Your task to perform on an android device: add a contact Image 0: 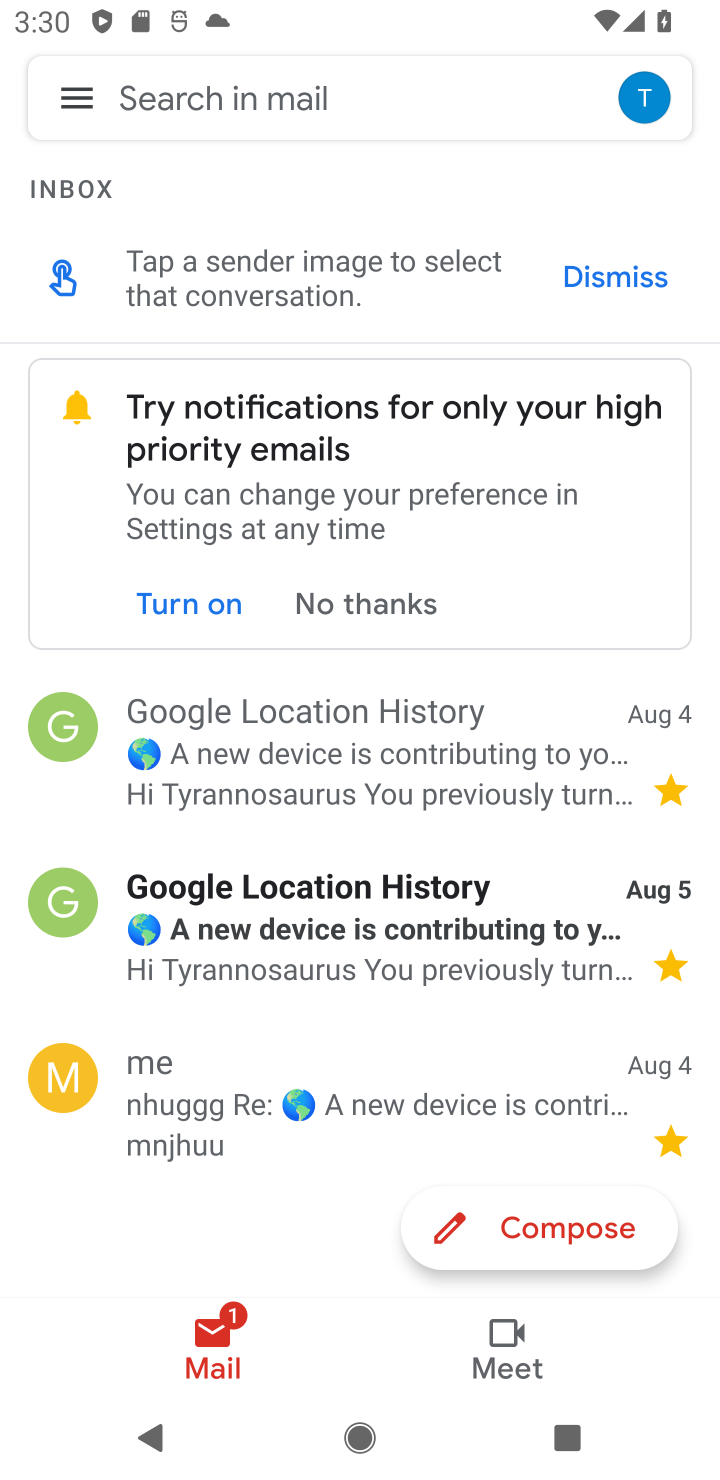
Step 0: press home button
Your task to perform on an android device: add a contact Image 1: 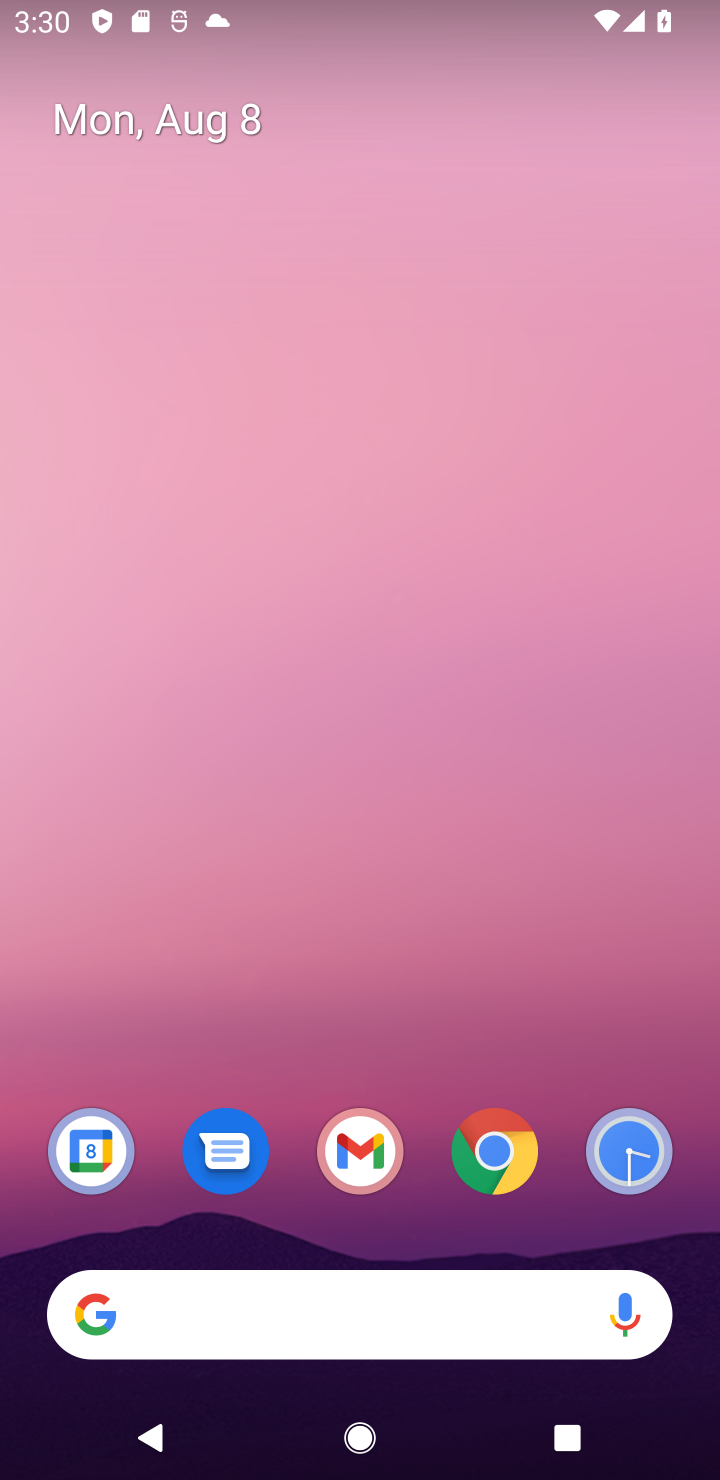
Step 1: drag from (342, 1045) to (298, 366)
Your task to perform on an android device: add a contact Image 2: 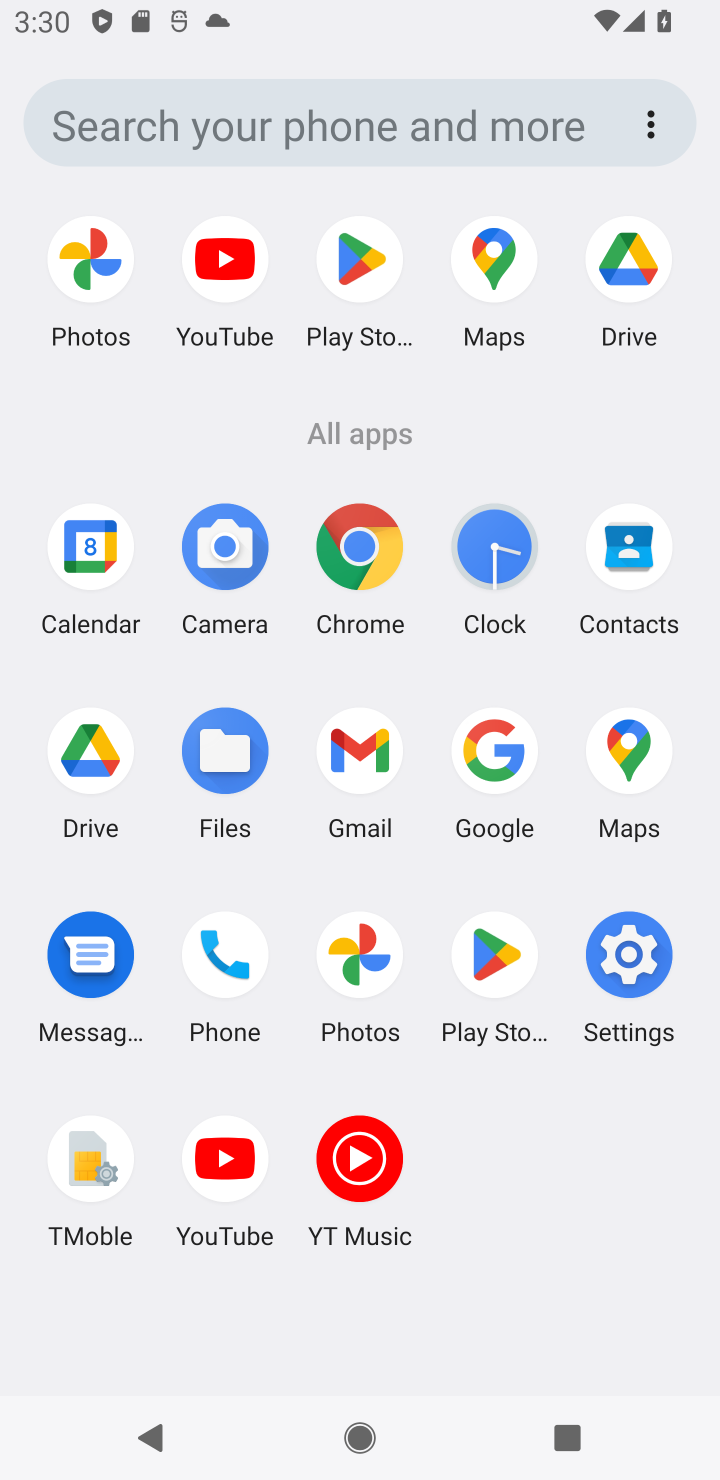
Step 2: click (599, 553)
Your task to perform on an android device: add a contact Image 3: 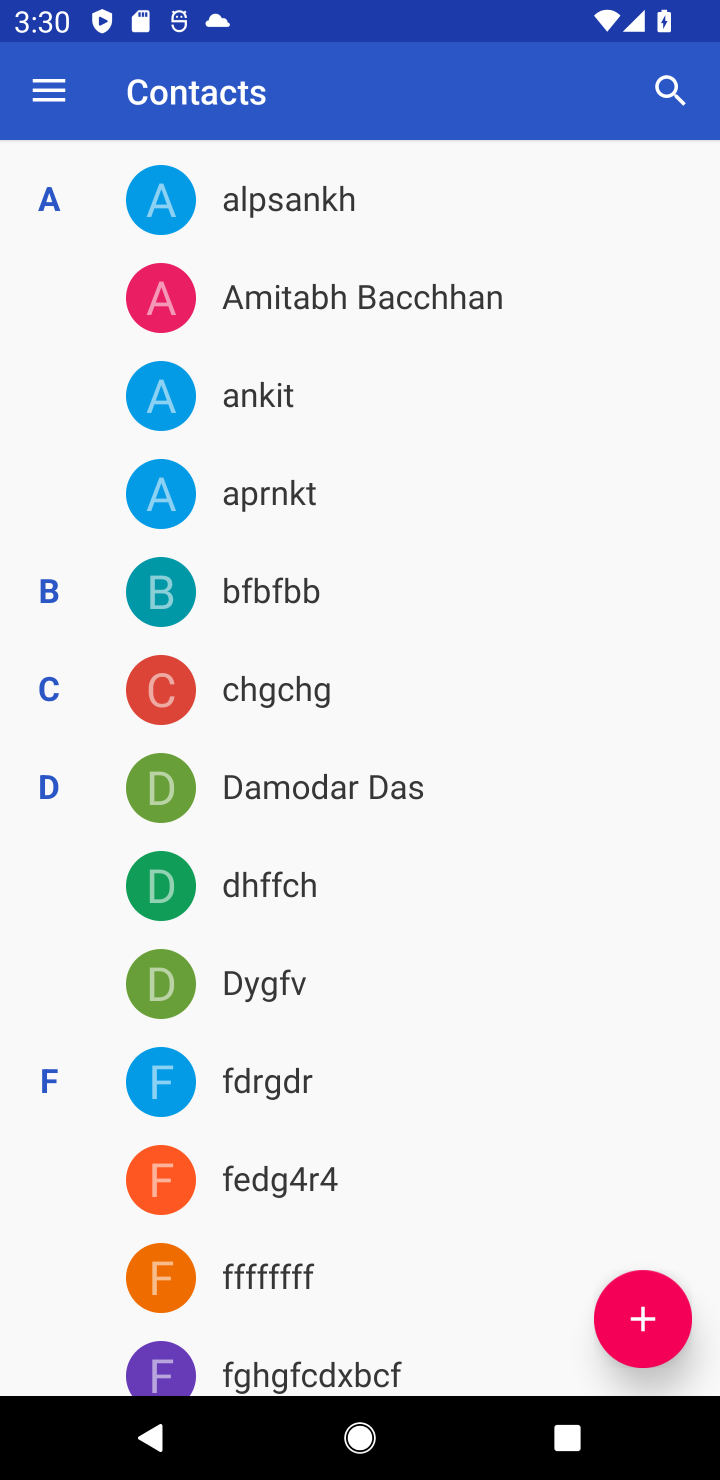
Step 3: click (646, 1282)
Your task to perform on an android device: add a contact Image 4: 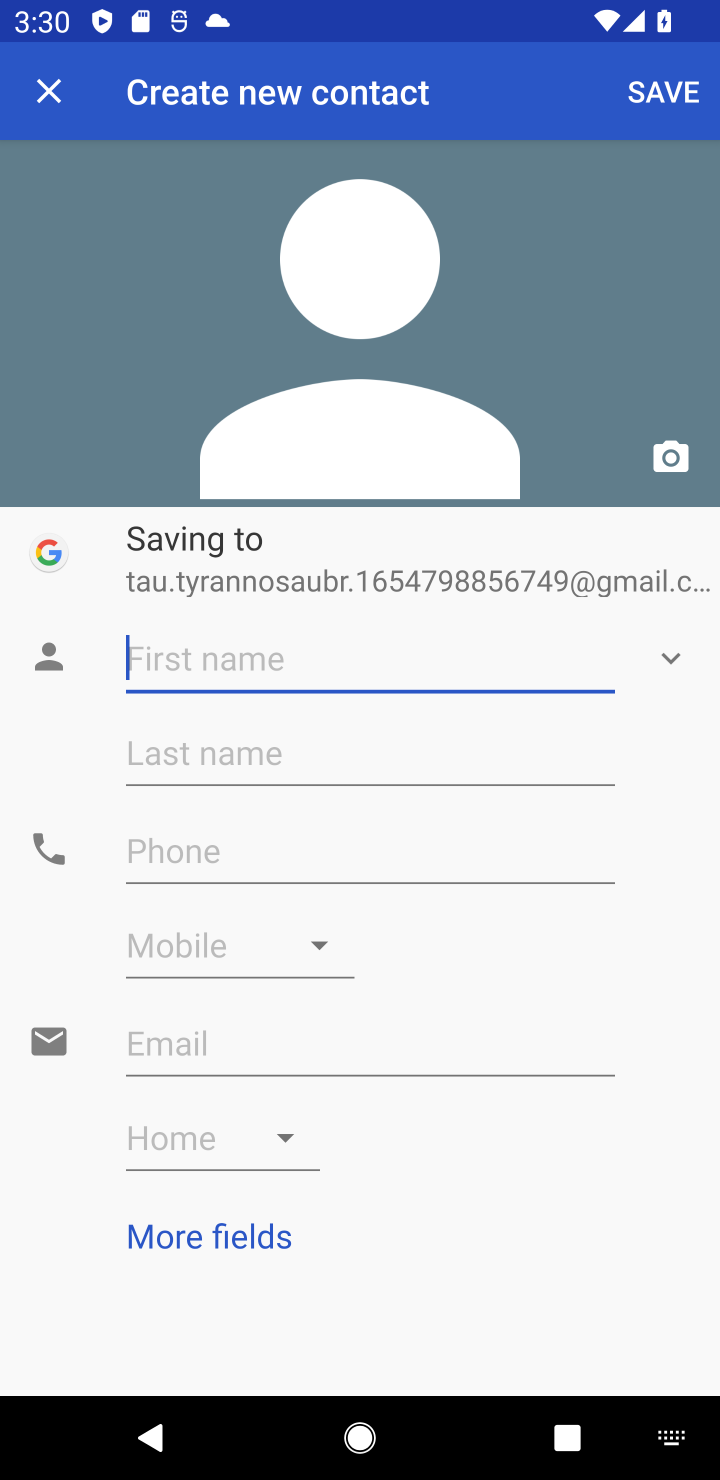
Step 4: type "aaa"
Your task to perform on an android device: add a contact Image 5: 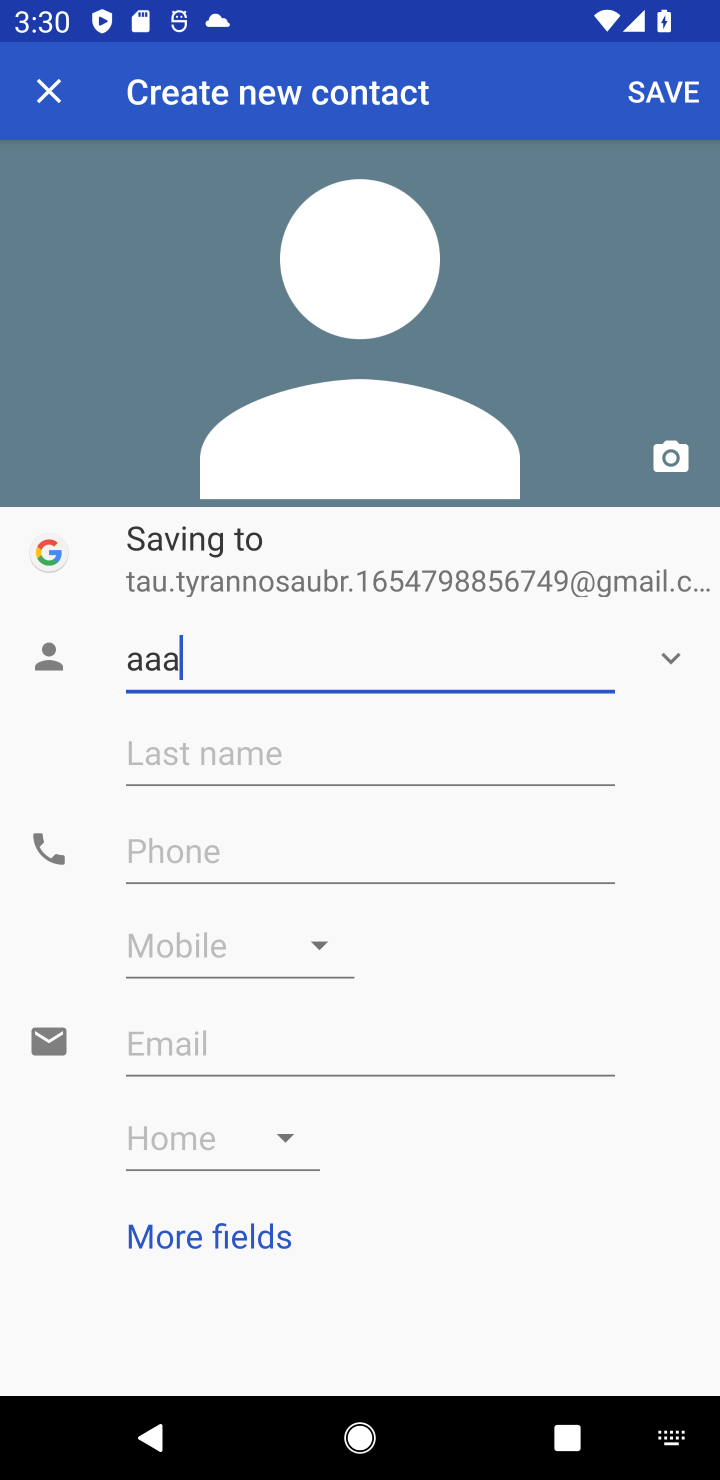
Step 5: click (253, 851)
Your task to perform on an android device: add a contact Image 6: 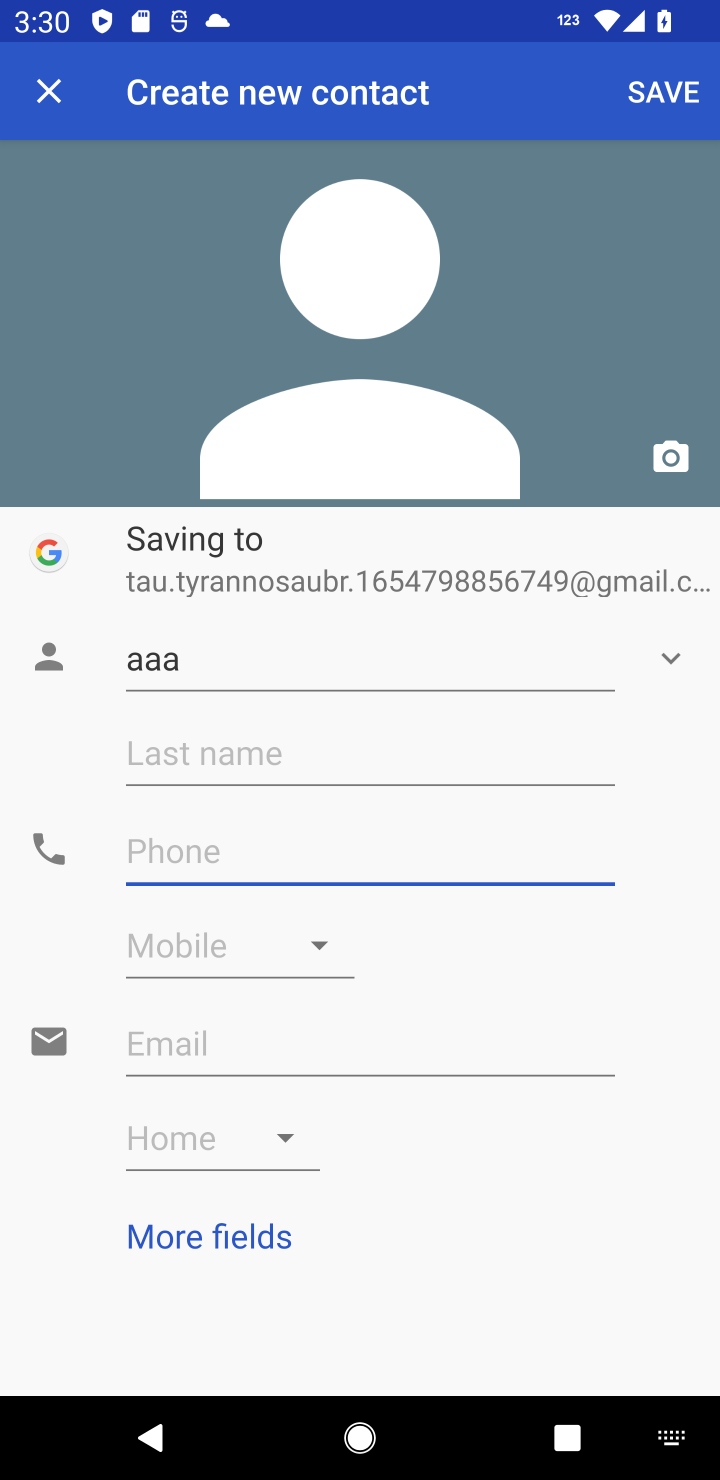
Step 6: type "8686577567"
Your task to perform on an android device: add a contact Image 7: 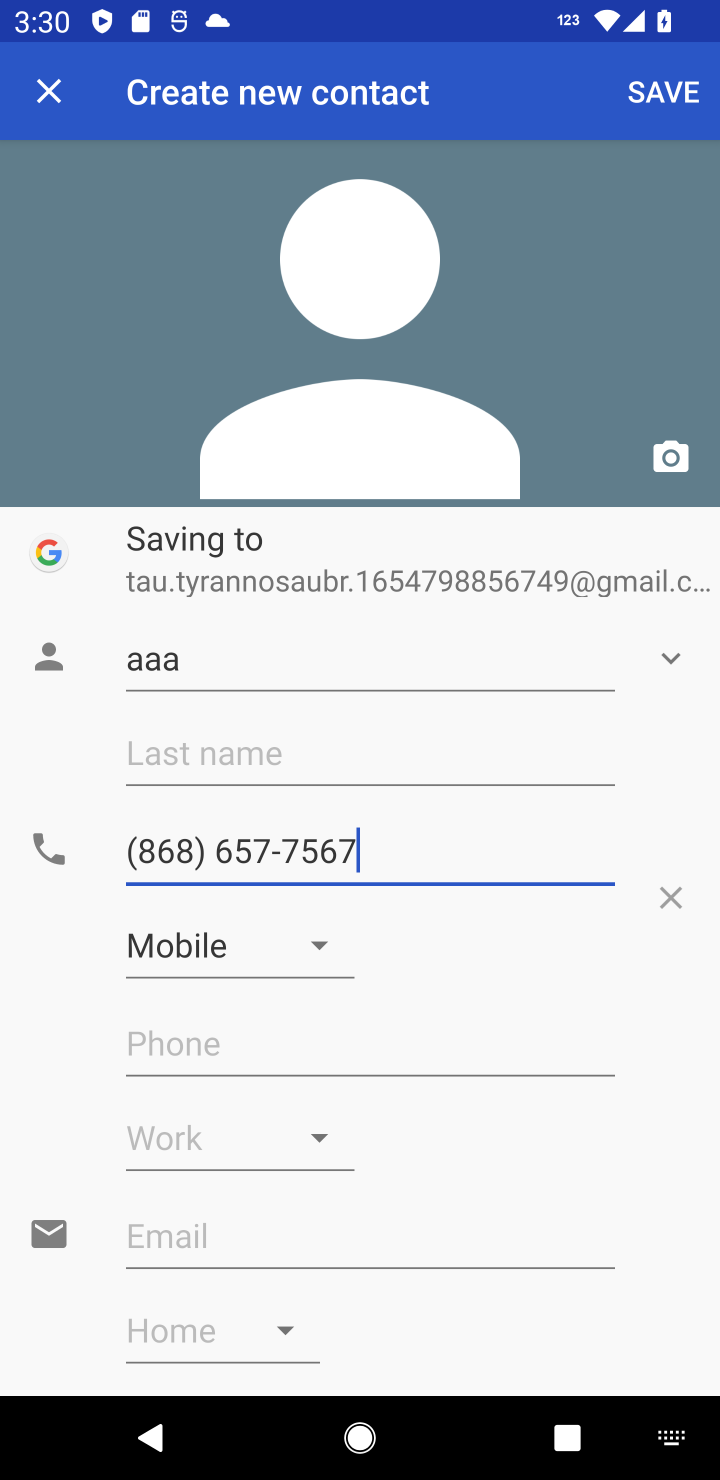
Step 7: click (688, 98)
Your task to perform on an android device: add a contact Image 8: 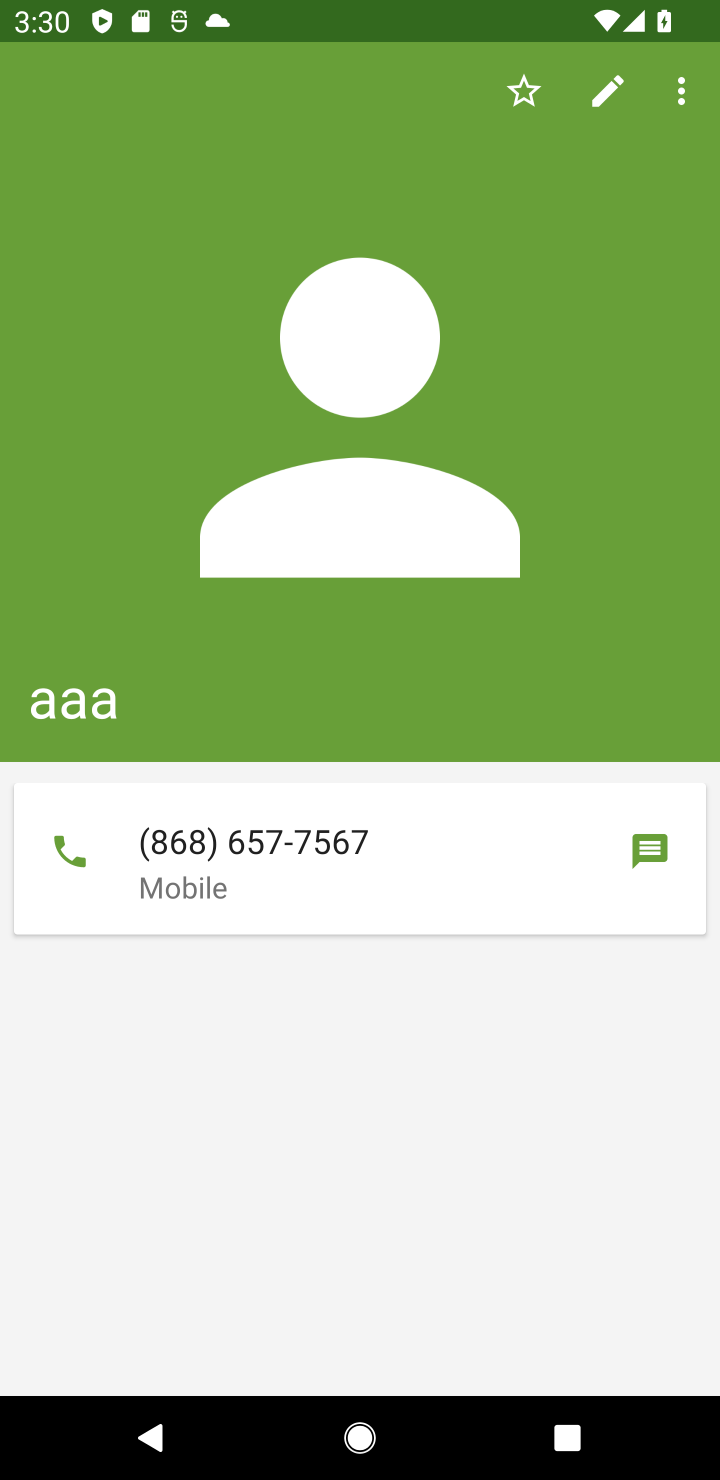
Step 8: task complete